Your task to perform on an android device: Open Maps and search for coffee Image 0: 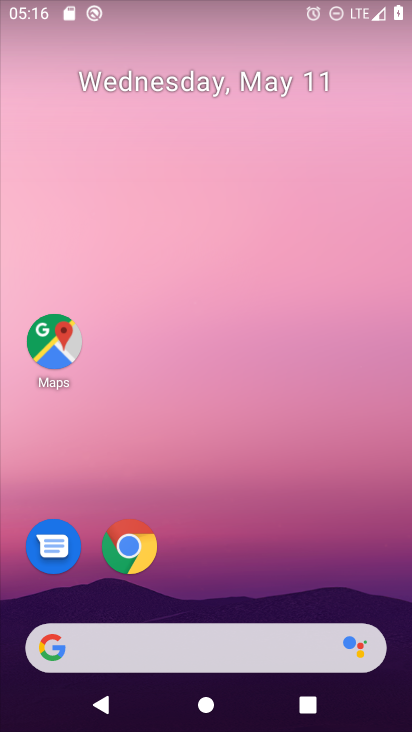
Step 0: drag from (293, 635) to (226, 35)
Your task to perform on an android device: Open Maps and search for coffee Image 1: 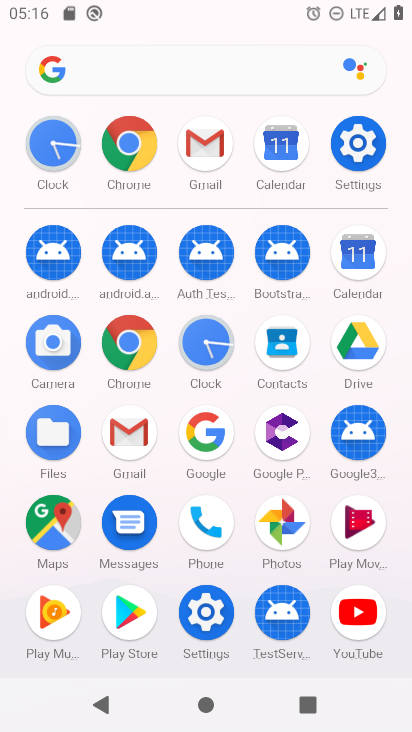
Step 1: click (47, 520)
Your task to perform on an android device: Open Maps and search for coffee Image 2: 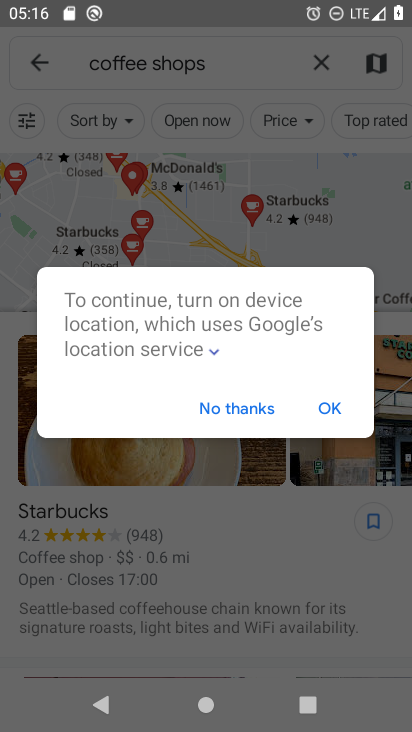
Step 2: click (243, 404)
Your task to perform on an android device: Open Maps and search for coffee Image 3: 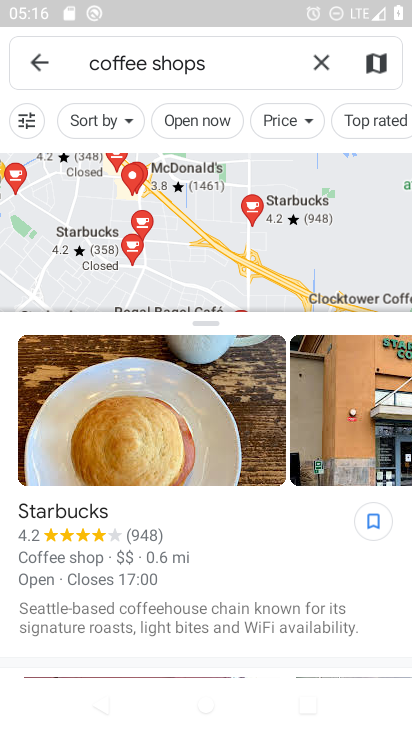
Step 3: click (328, 56)
Your task to perform on an android device: Open Maps and search for coffee Image 4: 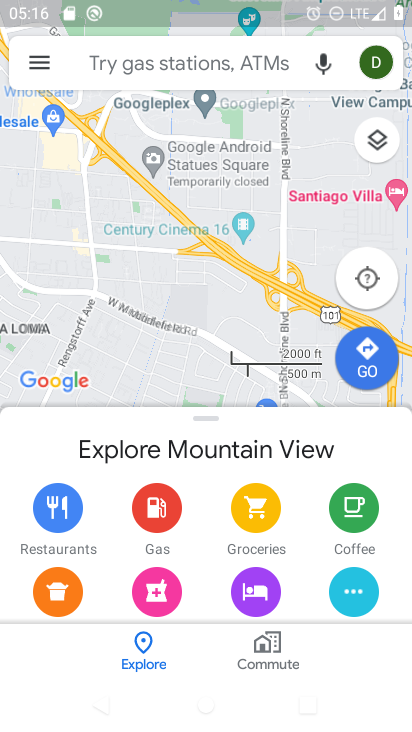
Step 4: drag from (195, 67) to (261, 67)
Your task to perform on an android device: Open Maps and search for coffee Image 5: 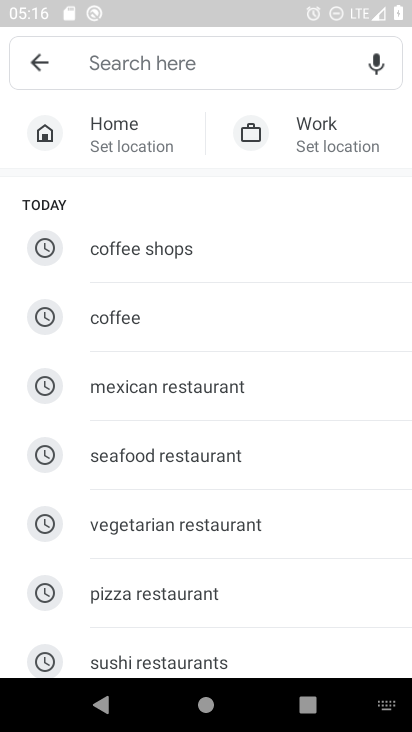
Step 5: click (92, 327)
Your task to perform on an android device: Open Maps and search for coffee Image 6: 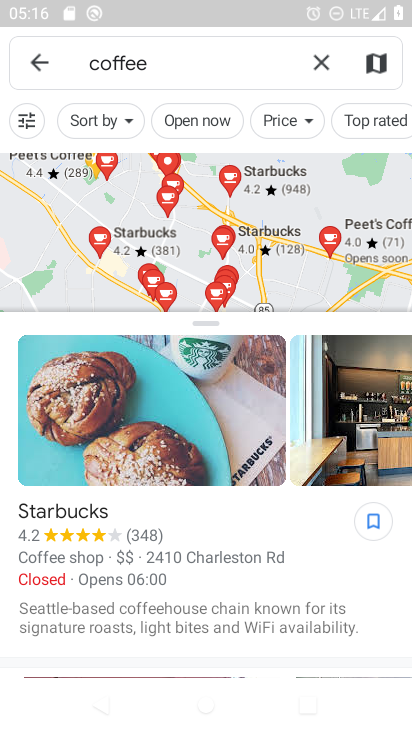
Step 6: task complete